Your task to perform on an android device: turn off notifications settings in the gmail app Image 0: 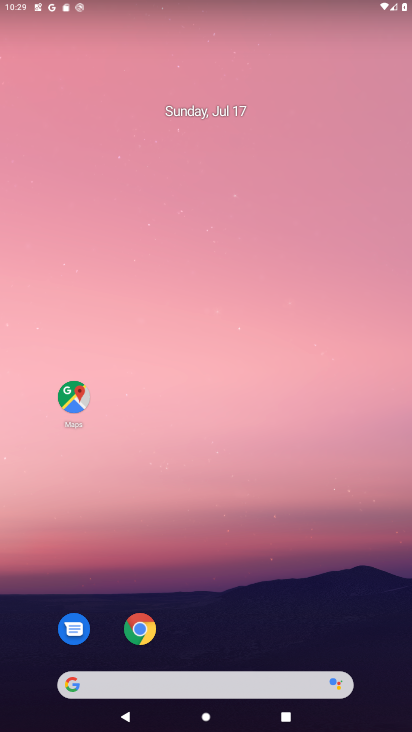
Step 0: drag from (196, 682) to (231, 163)
Your task to perform on an android device: turn off notifications settings in the gmail app Image 1: 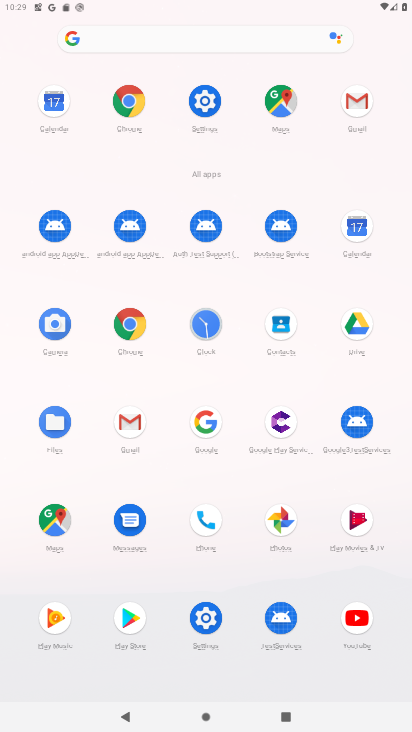
Step 1: click (358, 100)
Your task to perform on an android device: turn off notifications settings in the gmail app Image 2: 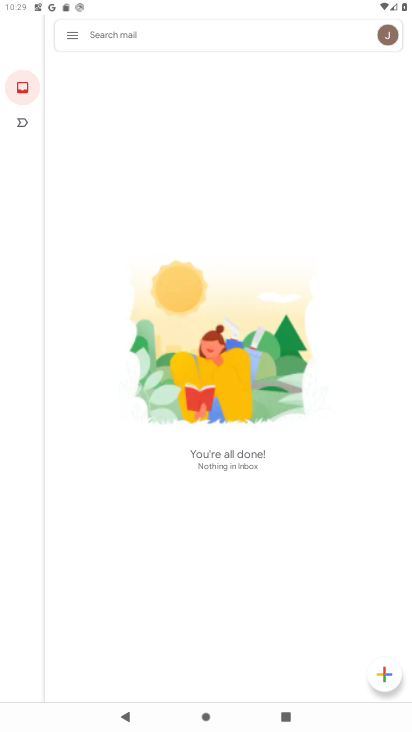
Step 2: click (73, 35)
Your task to perform on an android device: turn off notifications settings in the gmail app Image 3: 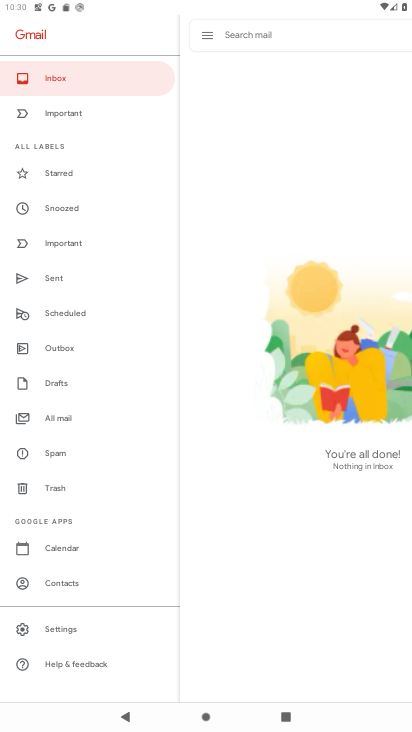
Step 3: click (69, 630)
Your task to perform on an android device: turn off notifications settings in the gmail app Image 4: 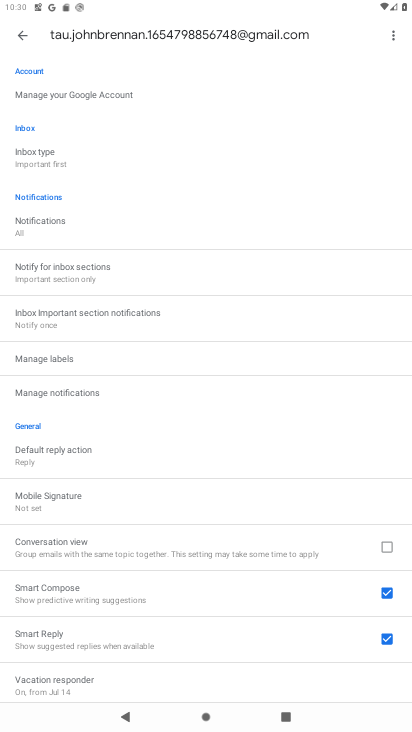
Step 4: click (87, 393)
Your task to perform on an android device: turn off notifications settings in the gmail app Image 5: 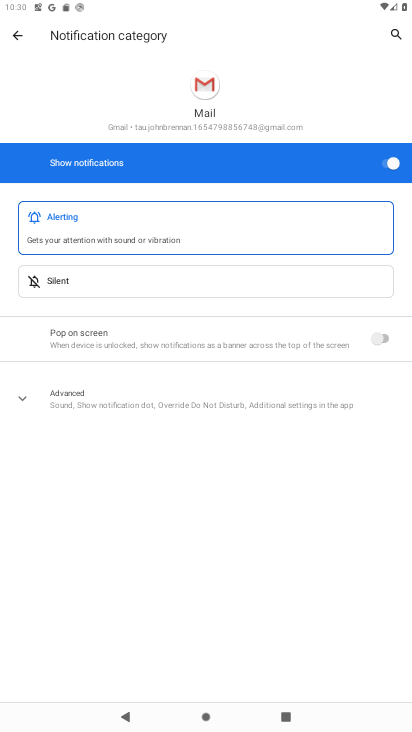
Step 5: click (391, 169)
Your task to perform on an android device: turn off notifications settings in the gmail app Image 6: 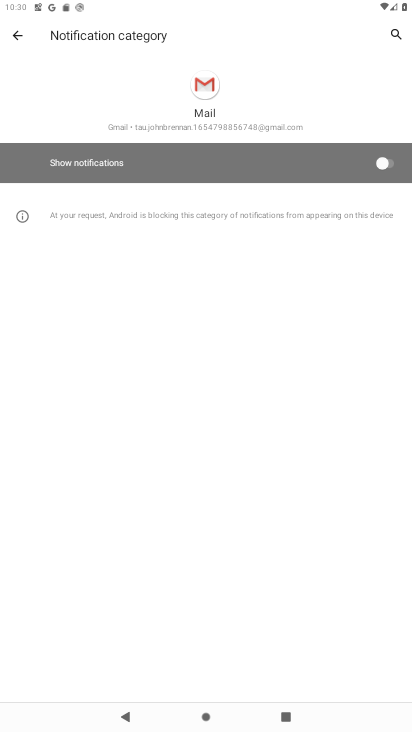
Step 6: task complete